Your task to perform on an android device: turn smart compose on in the gmail app Image 0: 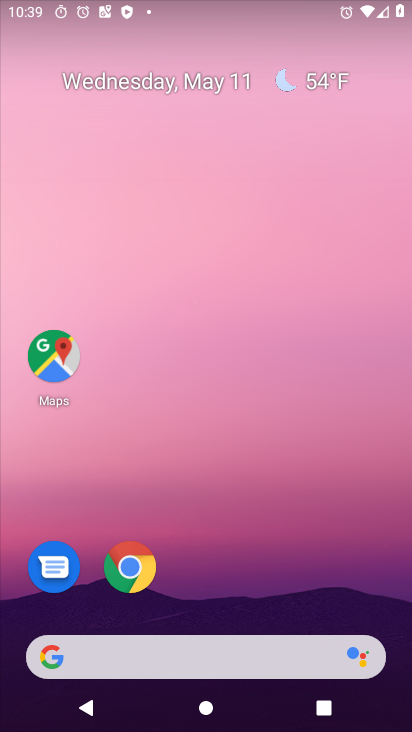
Step 0: drag from (230, 576) to (409, 2)
Your task to perform on an android device: turn smart compose on in the gmail app Image 1: 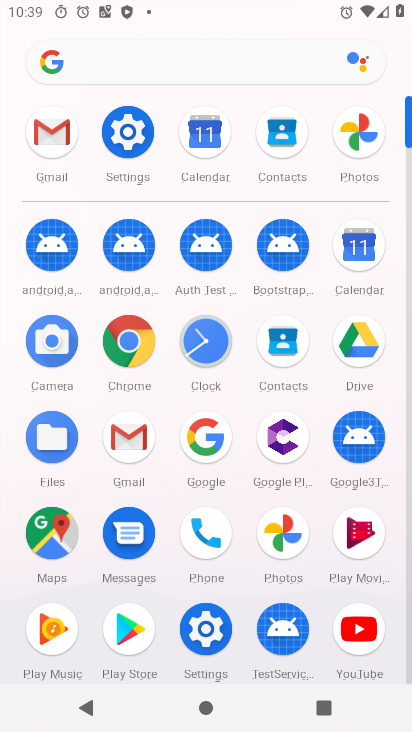
Step 1: click (121, 438)
Your task to perform on an android device: turn smart compose on in the gmail app Image 2: 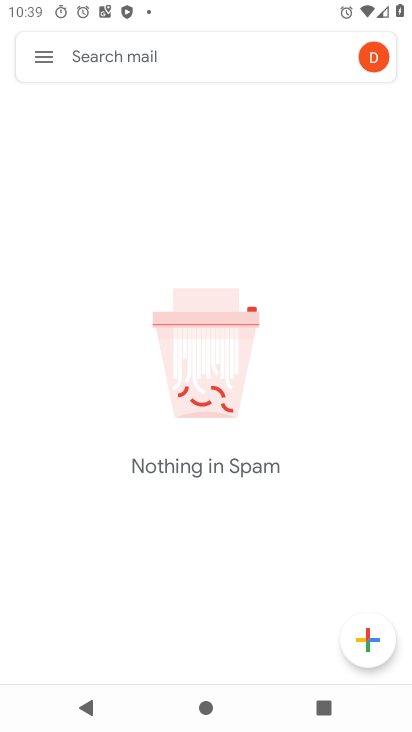
Step 2: click (41, 59)
Your task to perform on an android device: turn smart compose on in the gmail app Image 3: 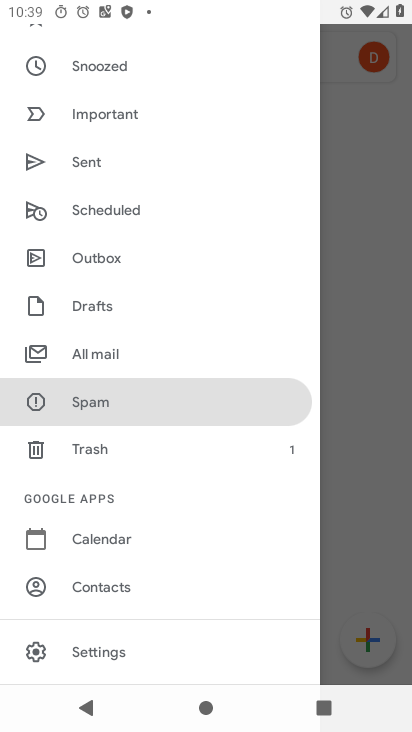
Step 3: click (92, 656)
Your task to perform on an android device: turn smart compose on in the gmail app Image 4: 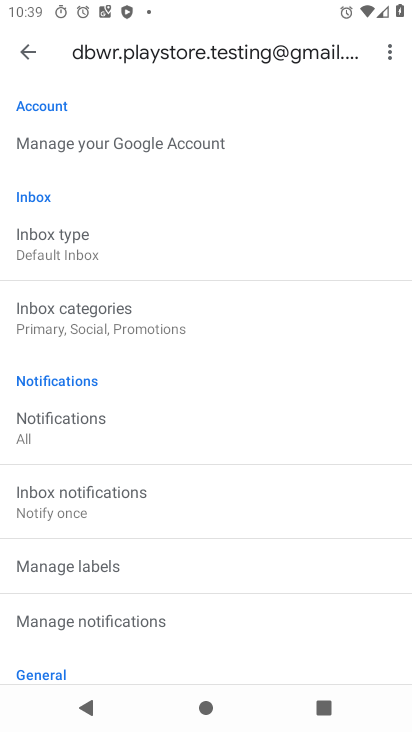
Step 4: task complete